Your task to perform on an android device: Open calendar and show me the fourth week of next month Image 0: 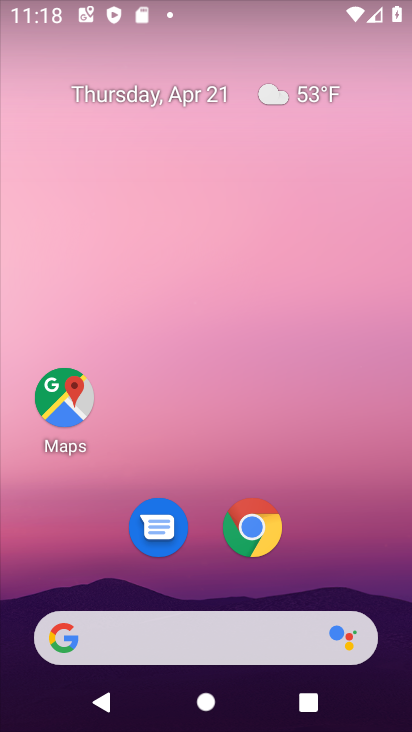
Step 0: drag from (379, 562) to (369, 232)
Your task to perform on an android device: Open calendar and show me the fourth week of next month Image 1: 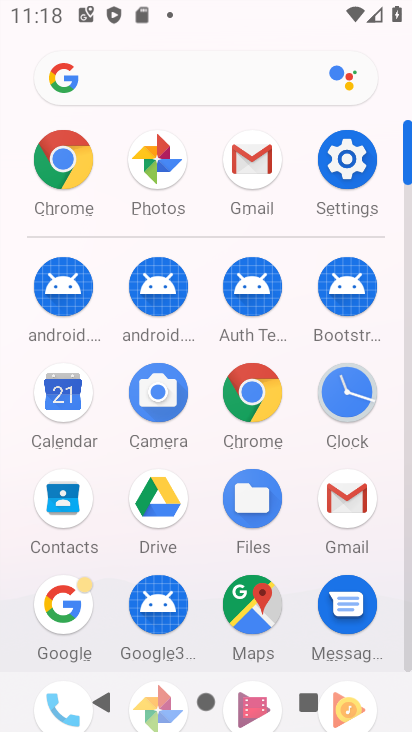
Step 1: click (52, 395)
Your task to perform on an android device: Open calendar and show me the fourth week of next month Image 2: 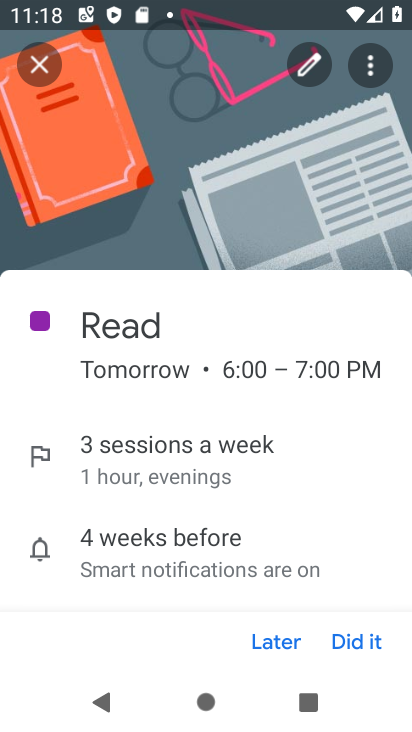
Step 2: click (40, 62)
Your task to perform on an android device: Open calendar and show me the fourth week of next month Image 3: 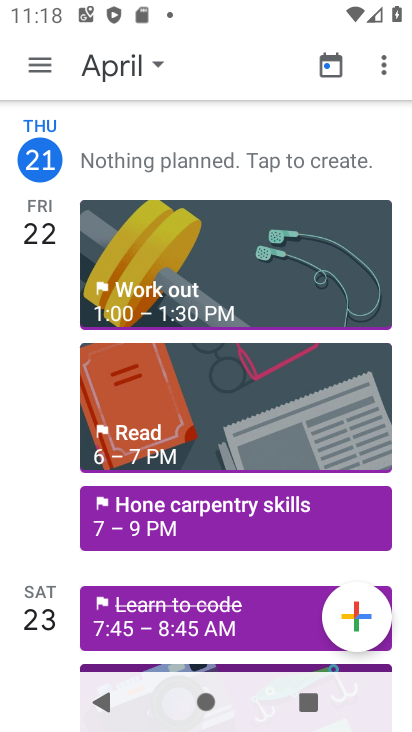
Step 3: click (154, 56)
Your task to perform on an android device: Open calendar and show me the fourth week of next month Image 4: 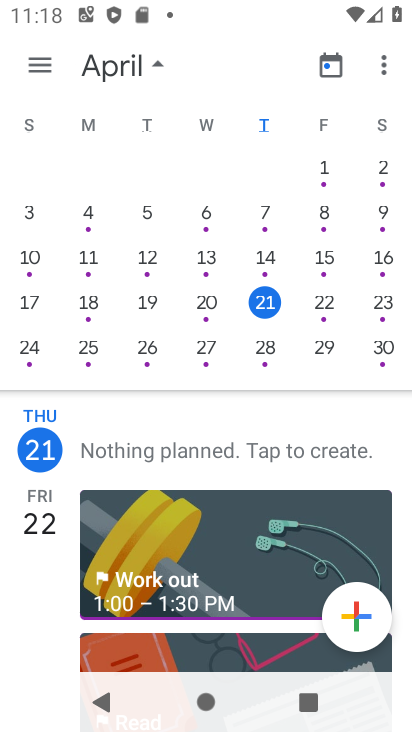
Step 4: drag from (333, 370) to (43, 340)
Your task to perform on an android device: Open calendar and show me the fourth week of next month Image 5: 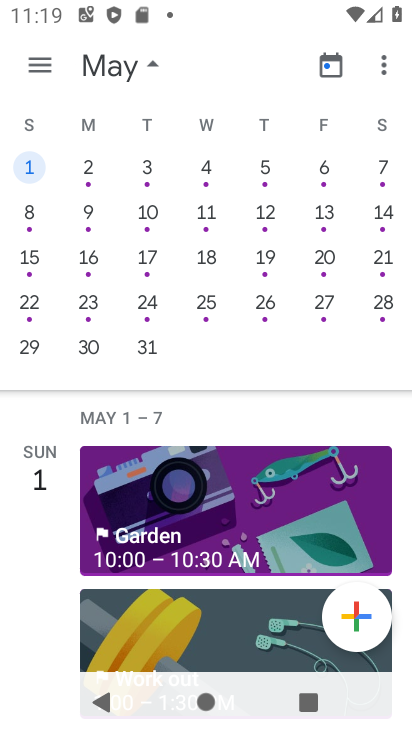
Step 5: click (151, 304)
Your task to perform on an android device: Open calendar and show me the fourth week of next month Image 6: 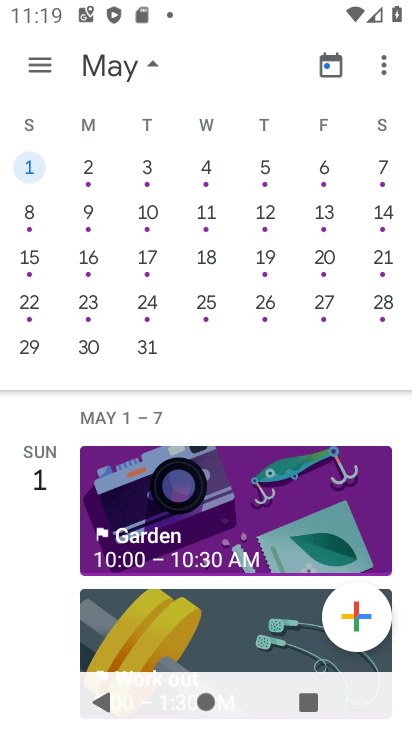
Step 6: click (158, 303)
Your task to perform on an android device: Open calendar and show me the fourth week of next month Image 7: 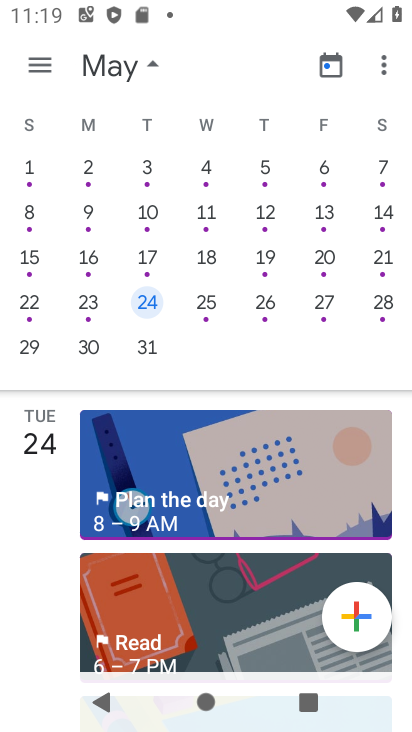
Step 7: task complete